Your task to perform on an android device: turn vacation reply on in the gmail app Image 0: 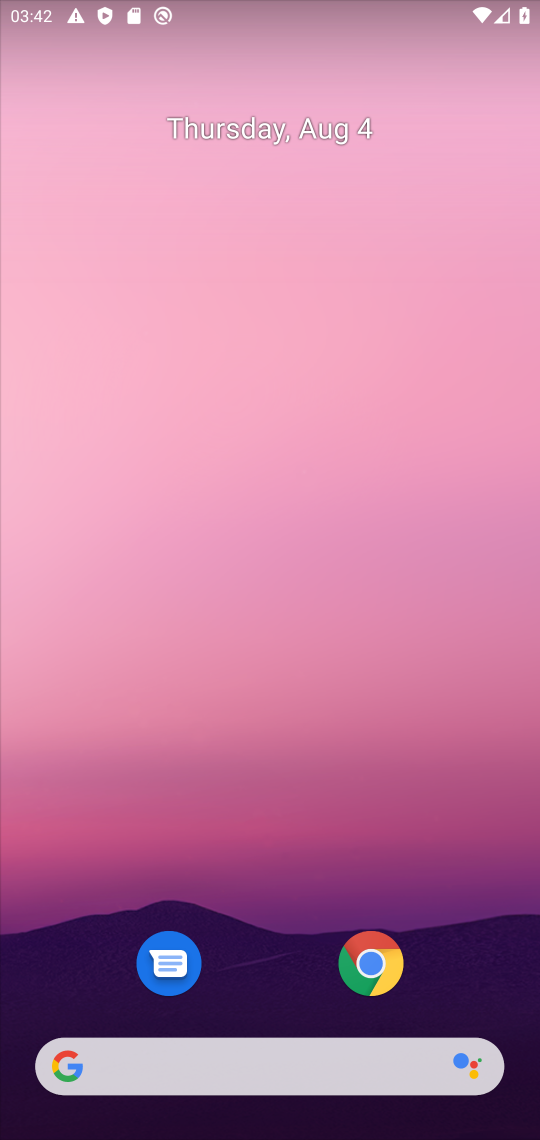
Step 0: drag from (288, 846) to (338, 118)
Your task to perform on an android device: turn vacation reply on in the gmail app Image 1: 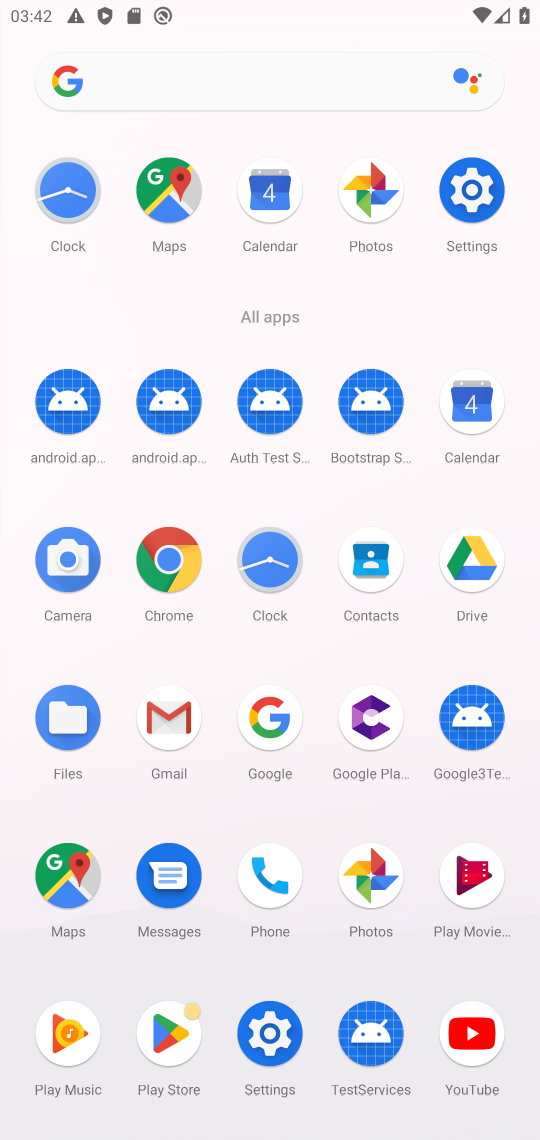
Step 1: click (173, 726)
Your task to perform on an android device: turn vacation reply on in the gmail app Image 2: 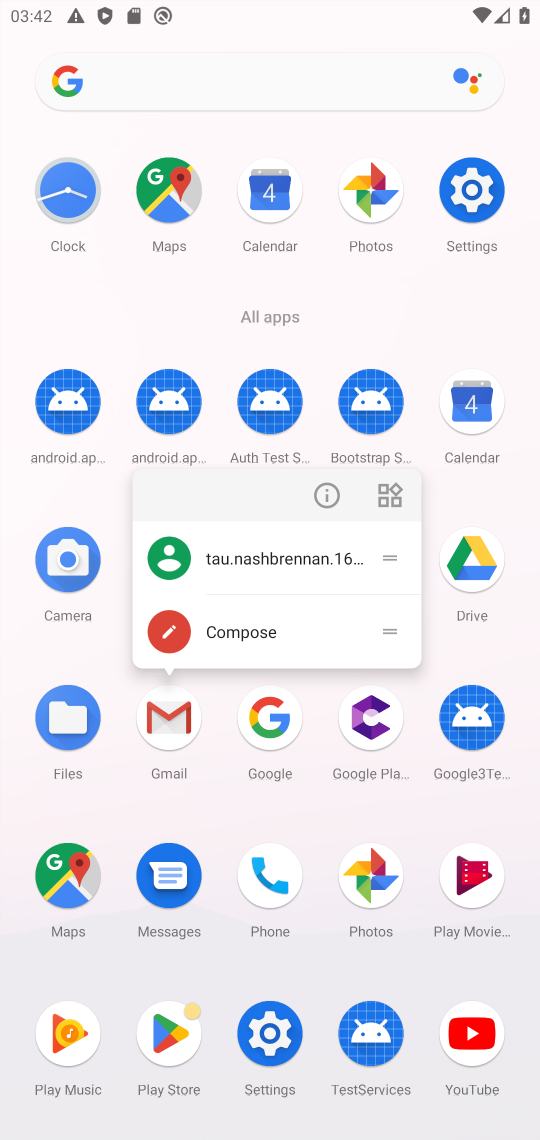
Step 2: click (173, 726)
Your task to perform on an android device: turn vacation reply on in the gmail app Image 3: 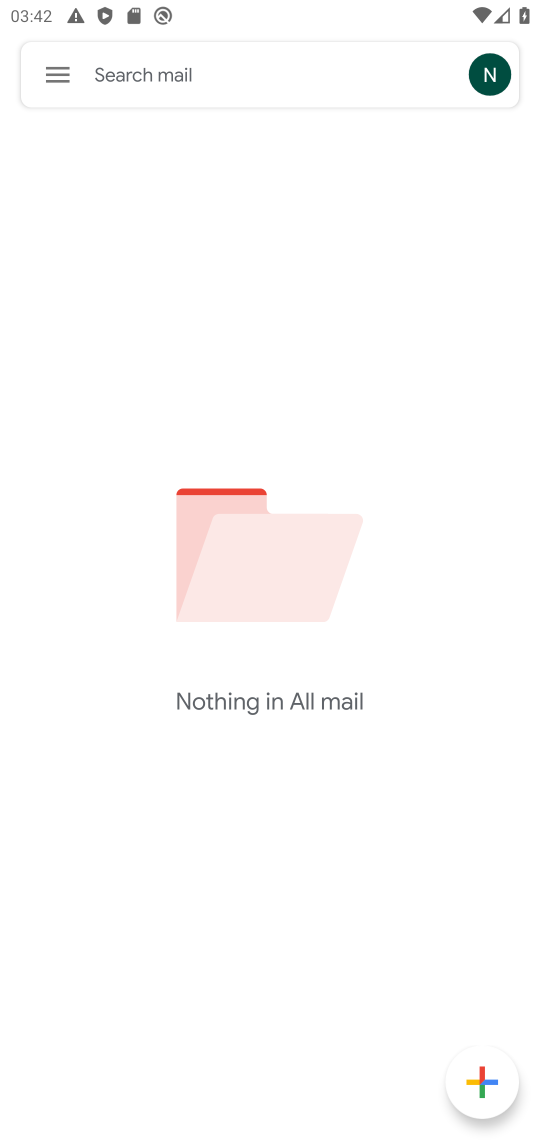
Step 3: click (63, 74)
Your task to perform on an android device: turn vacation reply on in the gmail app Image 4: 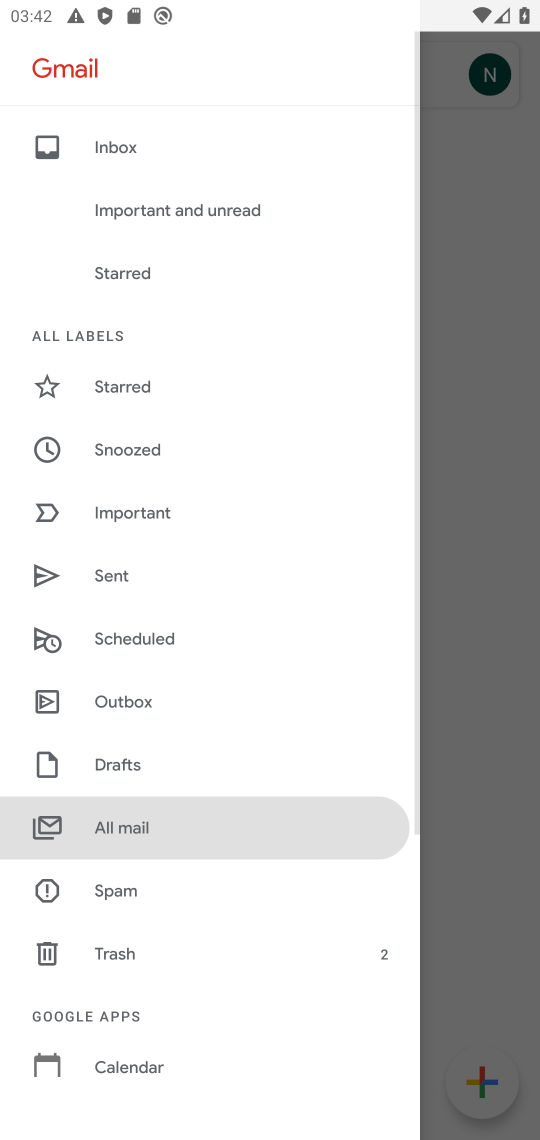
Step 4: drag from (158, 941) to (169, 254)
Your task to perform on an android device: turn vacation reply on in the gmail app Image 5: 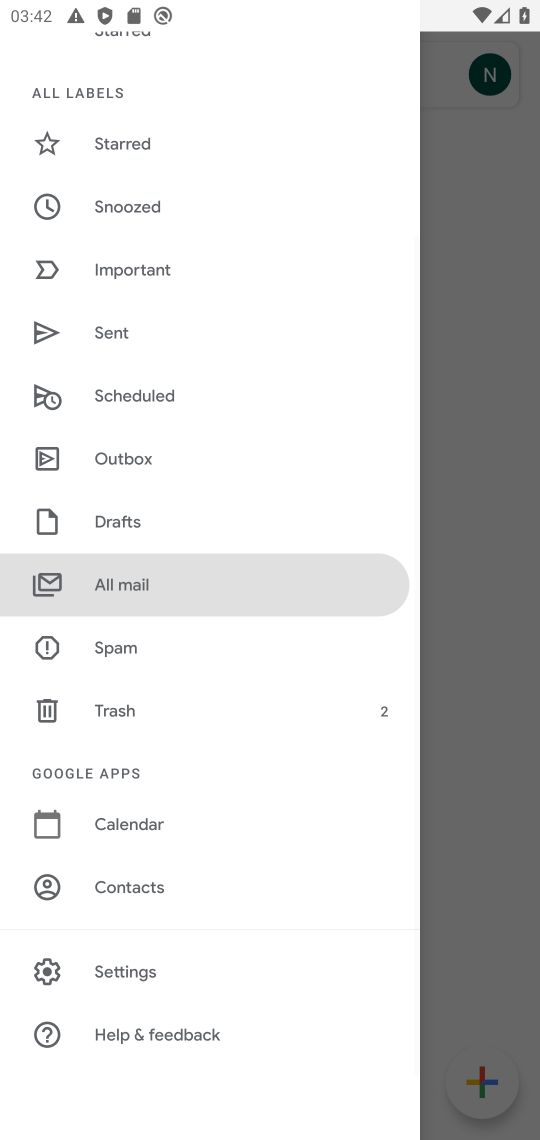
Step 5: click (148, 973)
Your task to perform on an android device: turn vacation reply on in the gmail app Image 6: 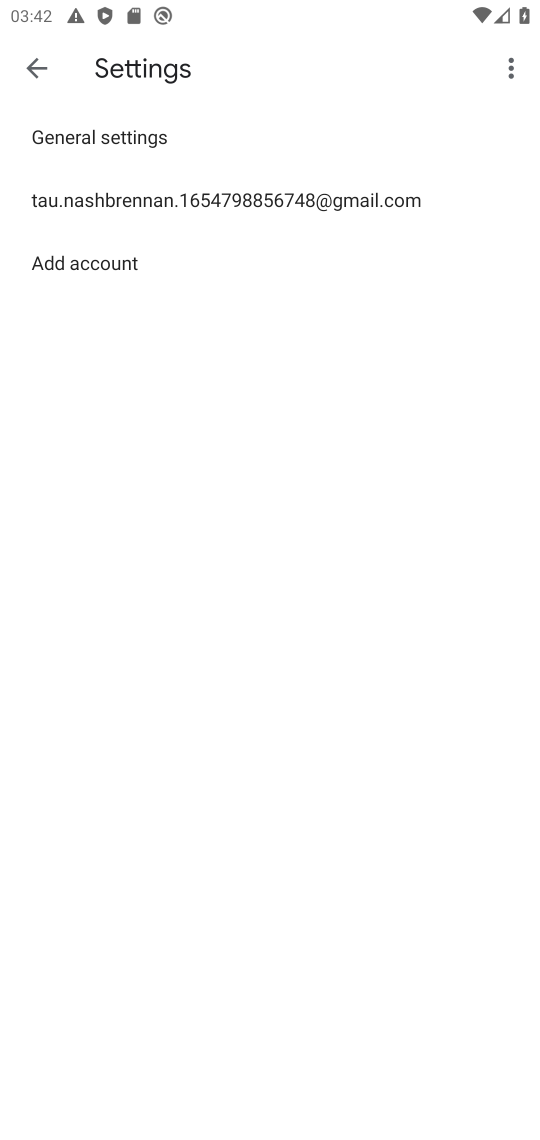
Step 6: click (140, 203)
Your task to perform on an android device: turn vacation reply on in the gmail app Image 7: 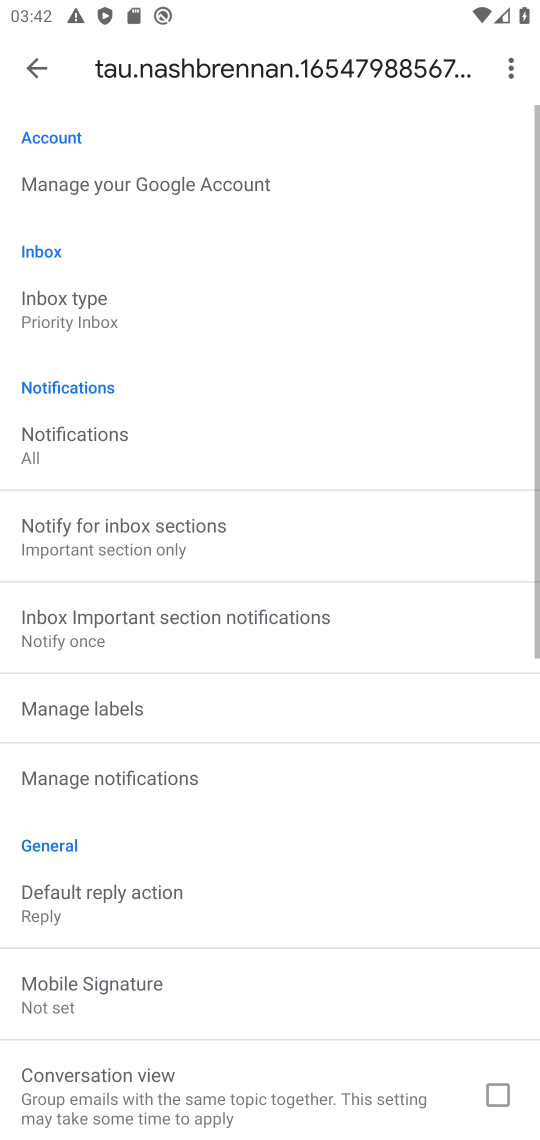
Step 7: drag from (267, 908) to (268, 224)
Your task to perform on an android device: turn vacation reply on in the gmail app Image 8: 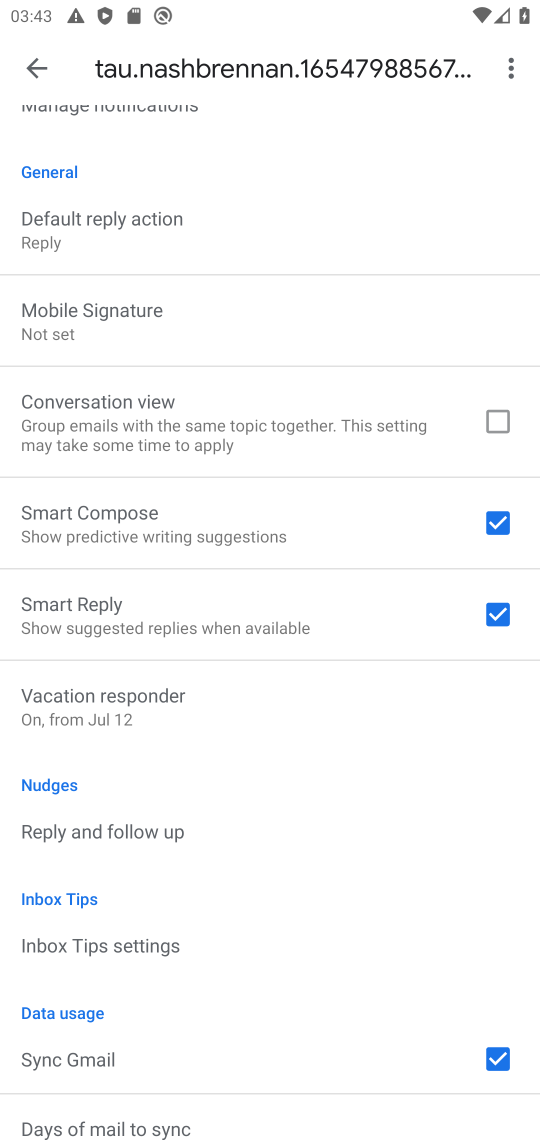
Step 8: click (125, 687)
Your task to perform on an android device: turn vacation reply on in the gmail app Image 9: 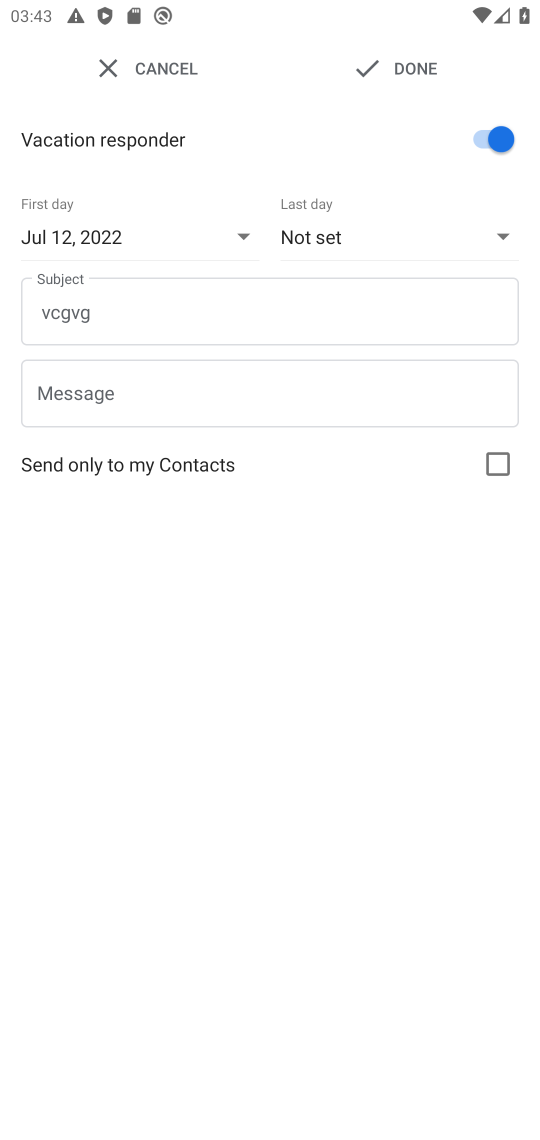
Step 9: click (403, 72)
Your task to perform on an android device: turn vacation reply on in the gmail app Image 10: 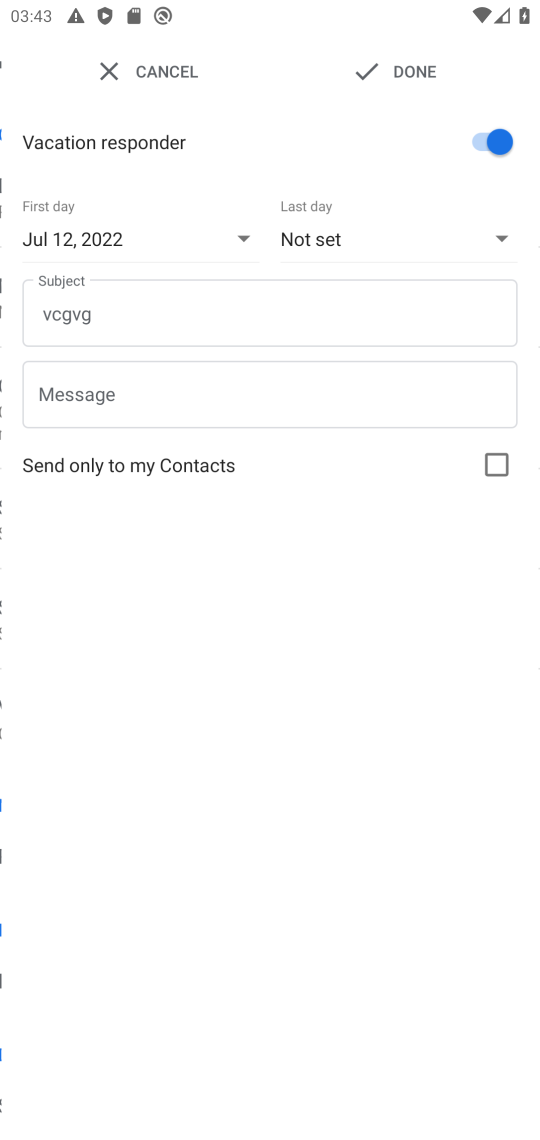
Step 10: task complete